Your task to perform on an android device: Open Google Maps Image 0: 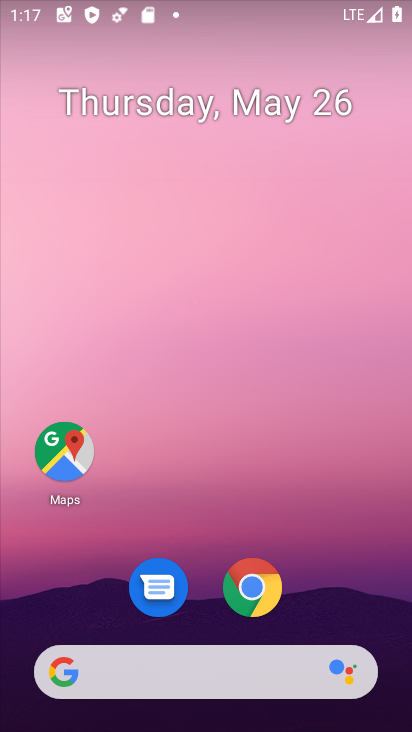
Step 0: drag from (381, 591) to (363, 304)
Your task to perform on an android device: Open Google Maps Image 1: 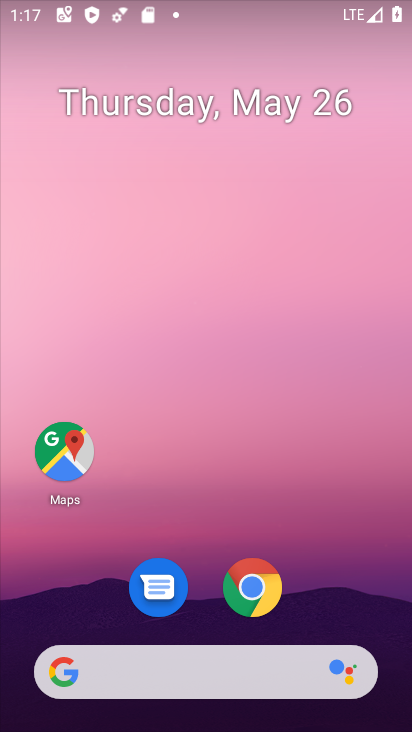
Step 1: drag from (376, 608) to (359, 279)
Your task to perform on an android device: Open Google Maps Image 2: 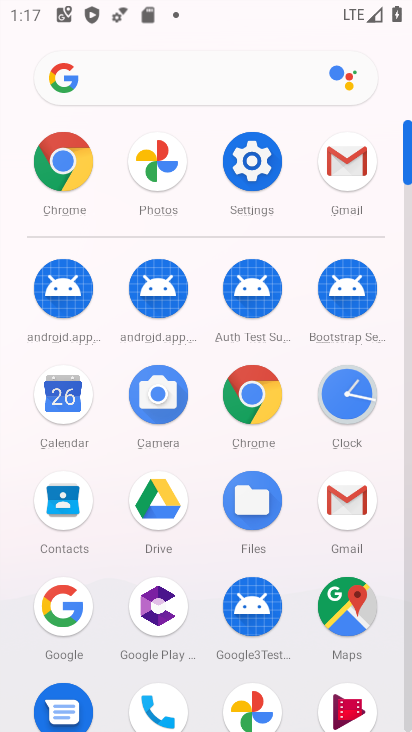
Step 2: click (349, 625)
Your task to perform on an android device: Open Google Maps Image 3: 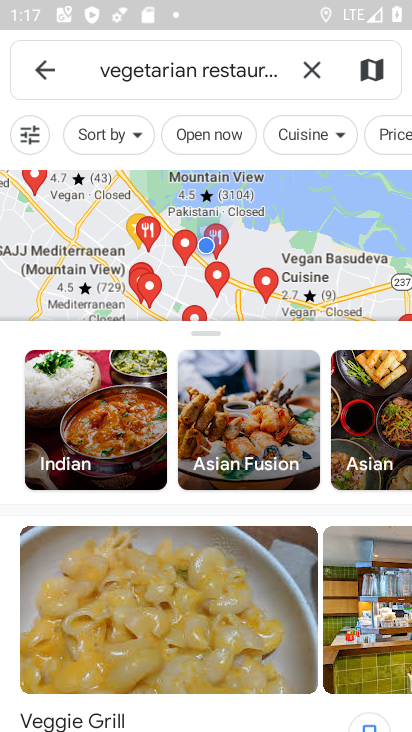
Step 3: task complete